Your task to perform on an android device: change the clock display to analog Image 0: 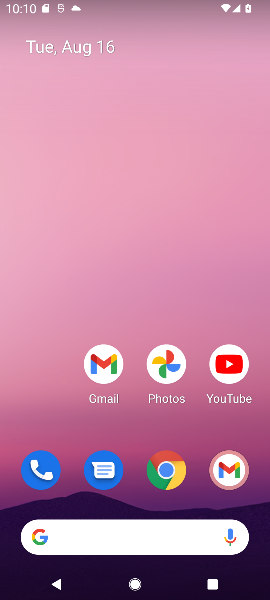
Step 0: drag from (58, 409) to (138, 19)
Your task to perform on an android device: change the clock display to analog Image 1: 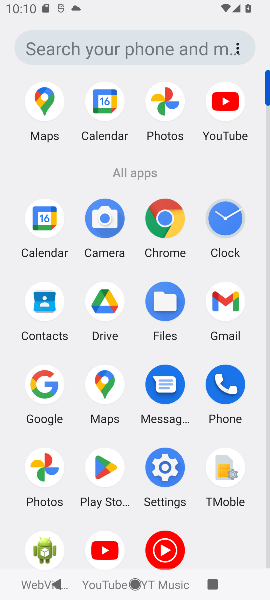
Step 1: click (224, 222)
Your task to perform on an android device: change the clock display to analog Image 2: 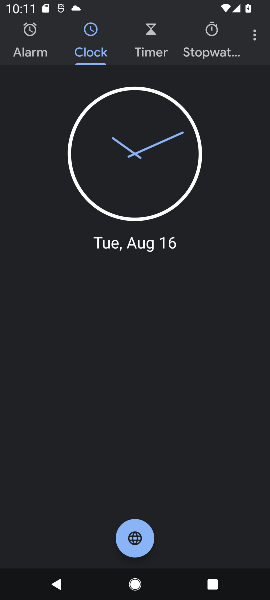
Step 2: task complete